Your task to perform on an android device: change notifications settings Image 0: 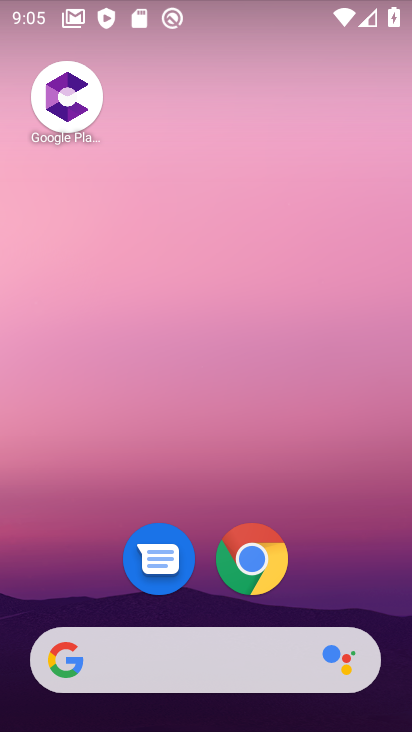
Step 0: drag from (3, 679) to (165, 227)
Your task to perform on an android device: change notifications settings Image 1: 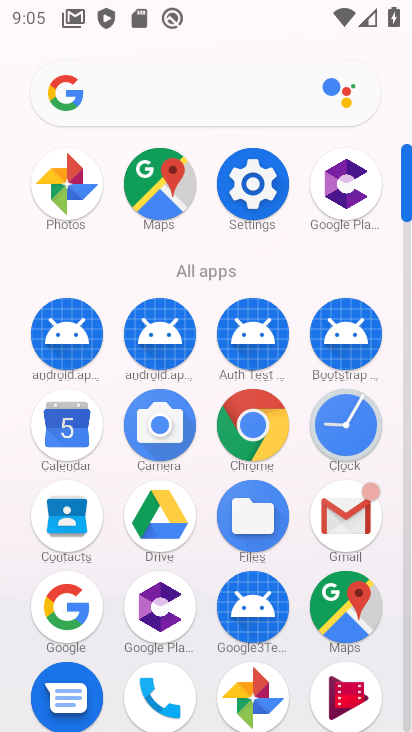
Step 1: click (251, 170)
Your task to perform on an android device: change notifications settings Image 2: 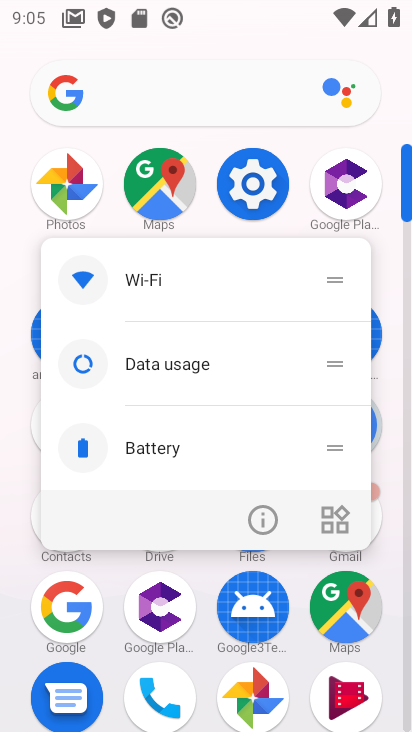
Step 2: click (390, 570)
Your task to perform on an android device: change notifications settings Image 3: 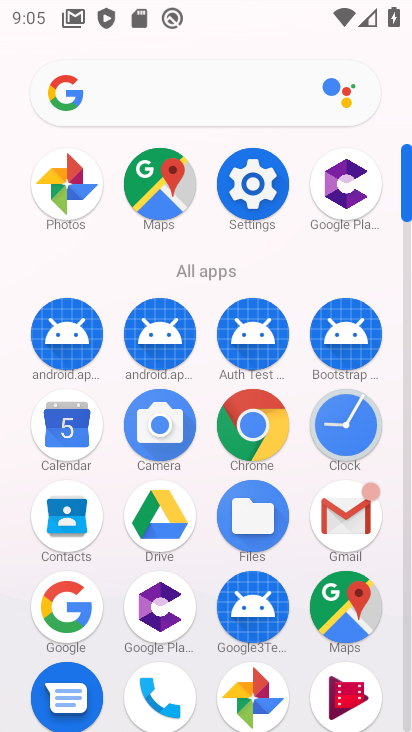
Step 3: click (255, 181)
Your task to perform on an android device: change notifications settings Image 4: 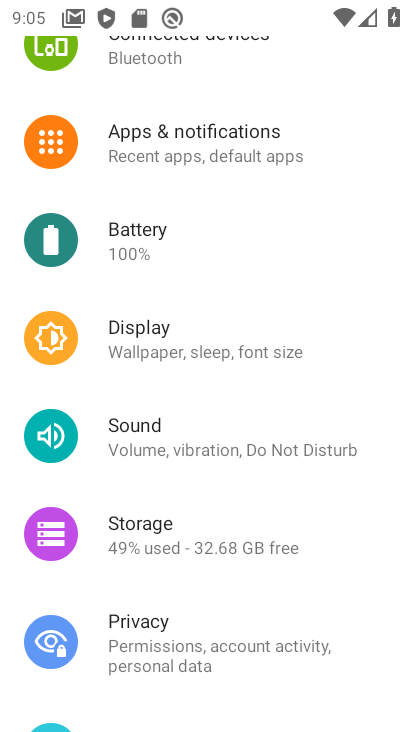
Step 4: click (250, 153)
Your task to perform on an android device: change notifications settings Image 5: 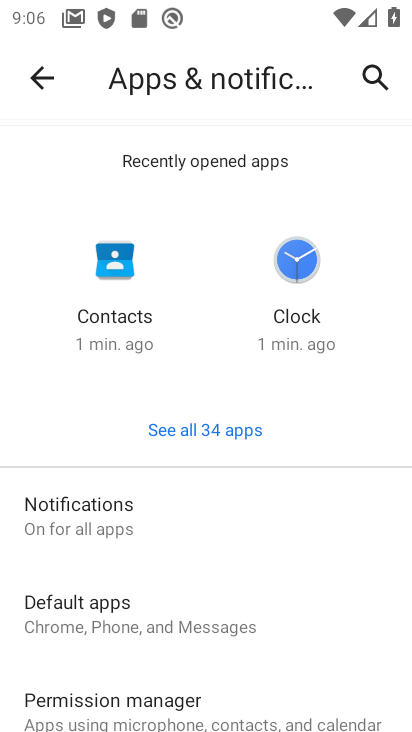
Step 5: click (173, 525)
Your task to perform on an android device: change notifications settings Image 6: 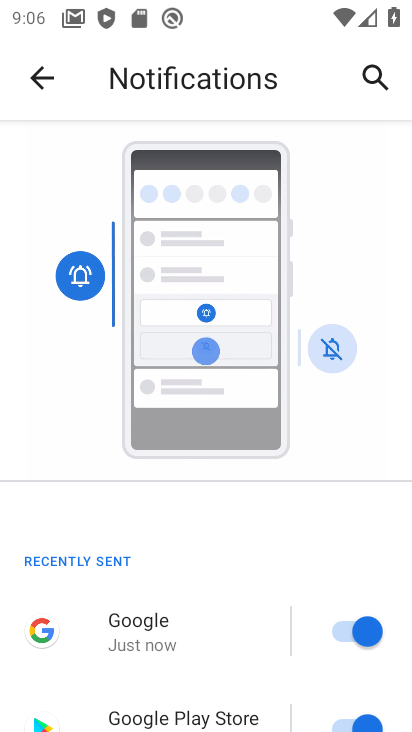
Step 6: drag from (190, 714) to (236, 433)
Your task to perform on an android device: change notifications settings Image 7: 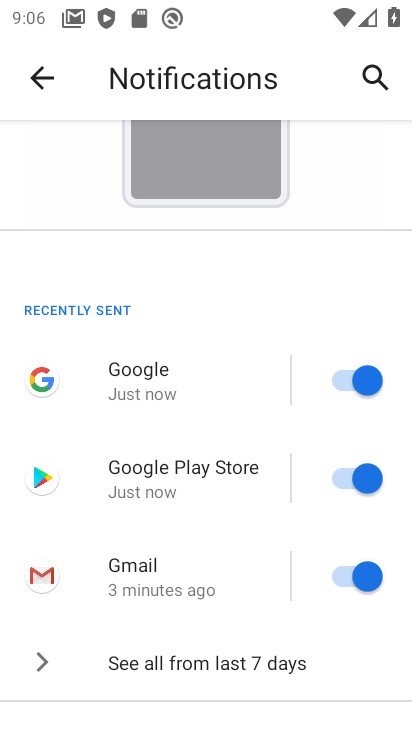
Step 7: click (360, 390)
Your task to perform on an android device: change notifications settings Image 8: 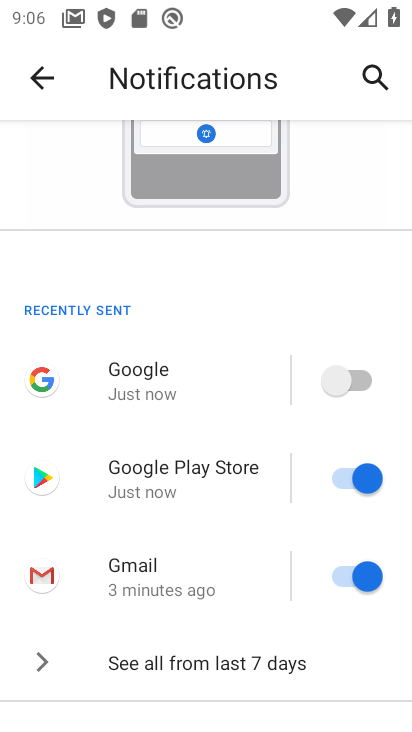
Step 8: task complete